Your task to perform on an android device: toggle sleep mode Image 0: 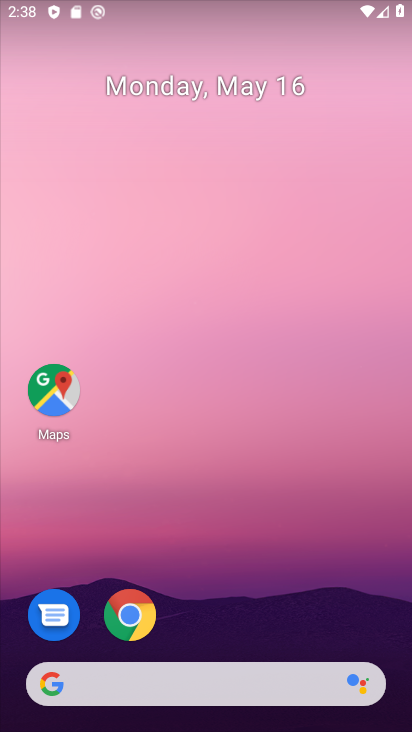
Step 0: drag from (346, 622) to (386, 49)
Your task to perform on an android device: toggle sleep mode Image 1: 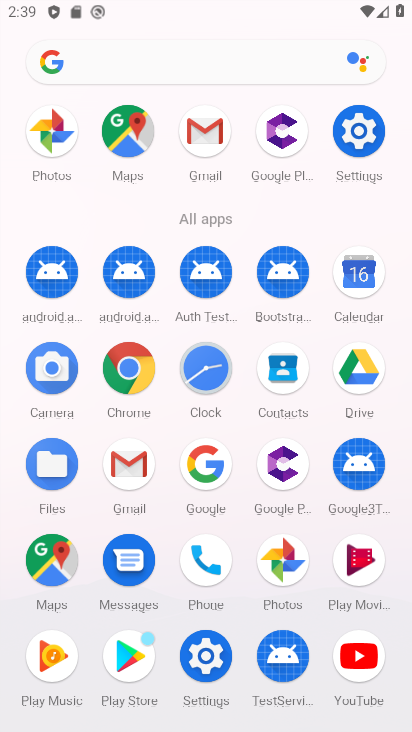
Step 1: click (364, 135)
Your task to perform on an android device: toggle sleep mode Image 2: 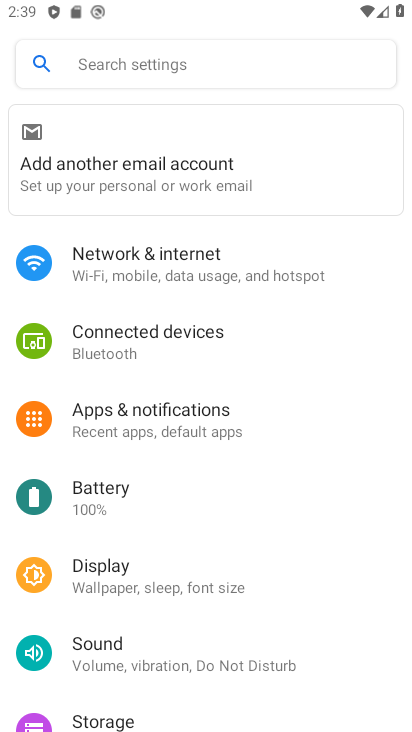
Step 2: click (115, 585)
Your task to perform on an android device: toggle sleep mode Image 3: 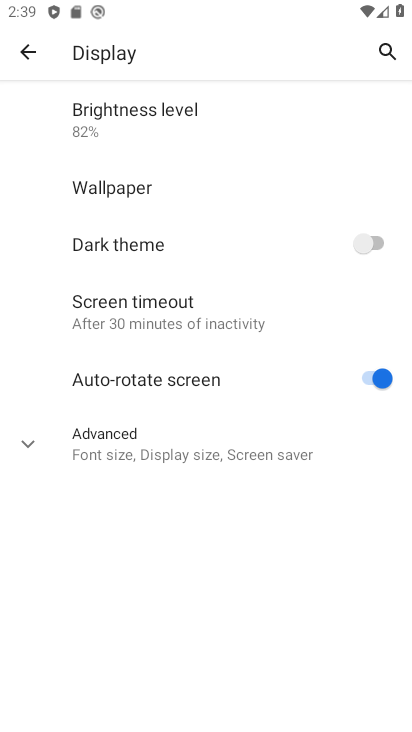
Step 3: click (28, 452)
Your task to perform on an android device: toggle sleep mode Image 4: 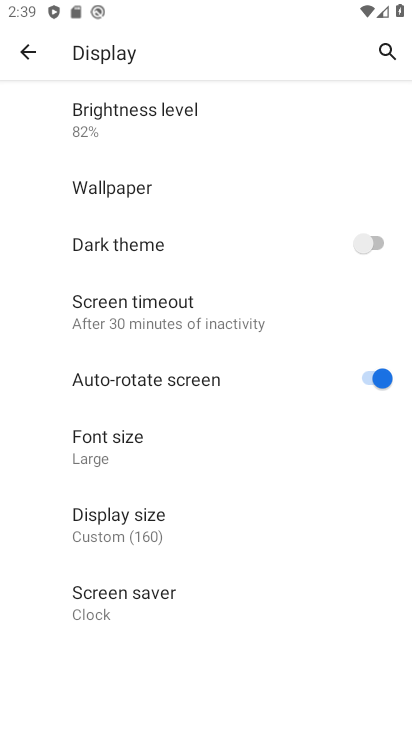
Step 4: task complete